Your task to perform on an android device: Set the phone to "Do not disturb". Image 0: 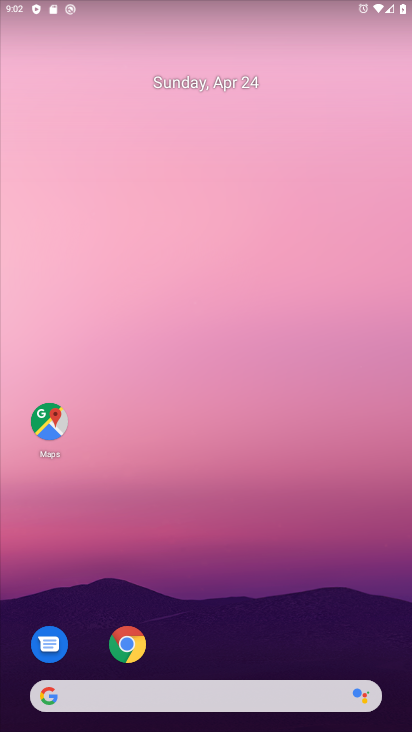
Step 0: drag from (189, 13) to (134, 528)
Your task to perform on an android device: Set the phone to "Do not disturb". Image 1: 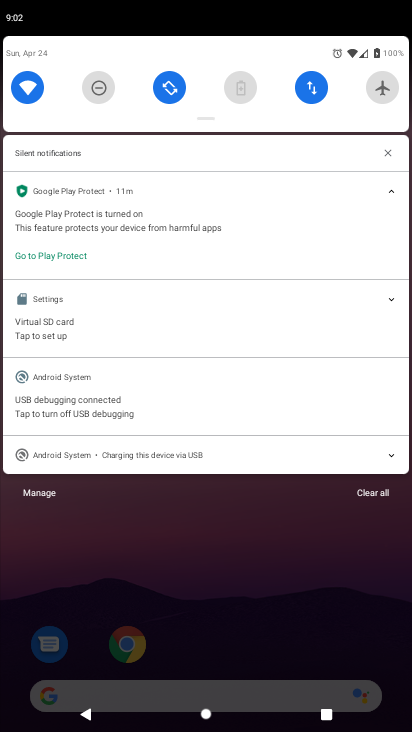
Step 1: click (107, 79)
Your task to perform on an android device: Set the phone to "Do not disturb". Image 2: 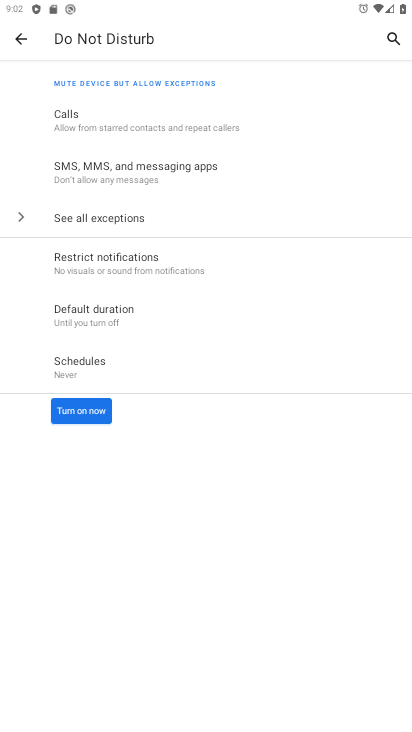
Step 2: click (67, 419)
Your task to perform on an android device: Set the phone to "Do not disturb". Image 3: 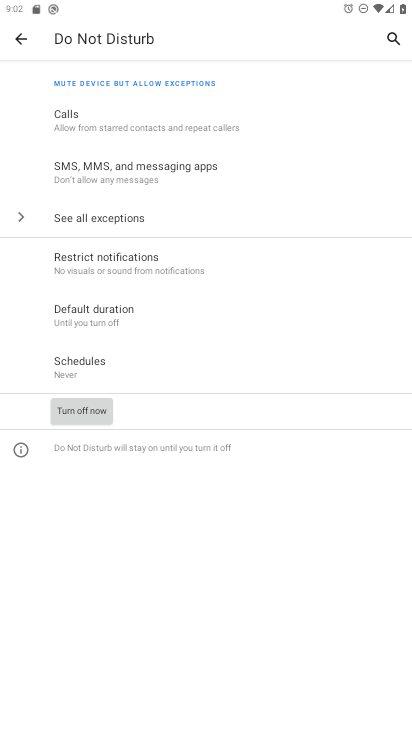
Step 3: task complete